Your task to perform on an android device: Open CNN.com Image 0: 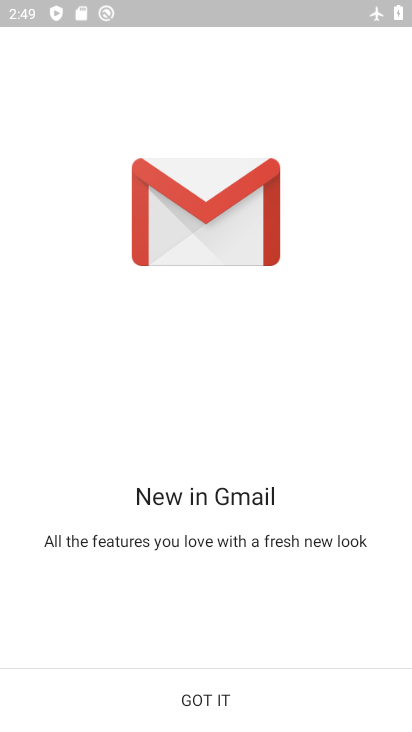
Step 0: press home button
Your task to perform on an android device: Open CNN.com Image 1: 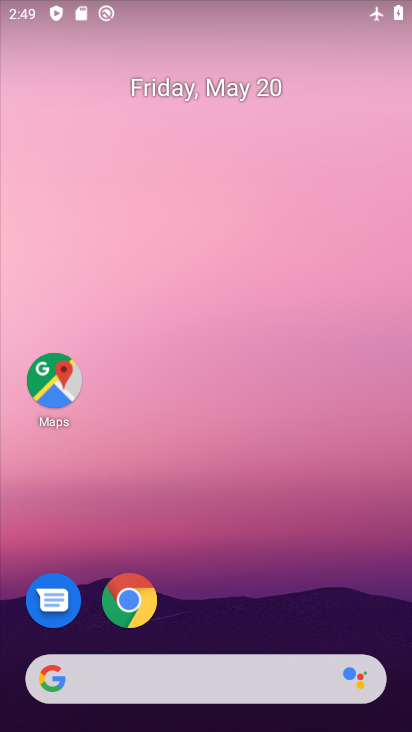
Step 1: click (141, 602)
Your task to perform on an android device: Open CNN.com Image 2: 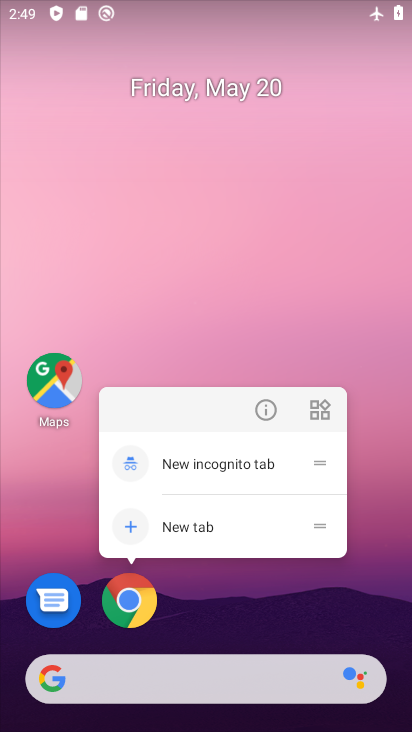
Step 2: click (141, 602)
Your task to perform on an android device: Open CNN.com Image 3: 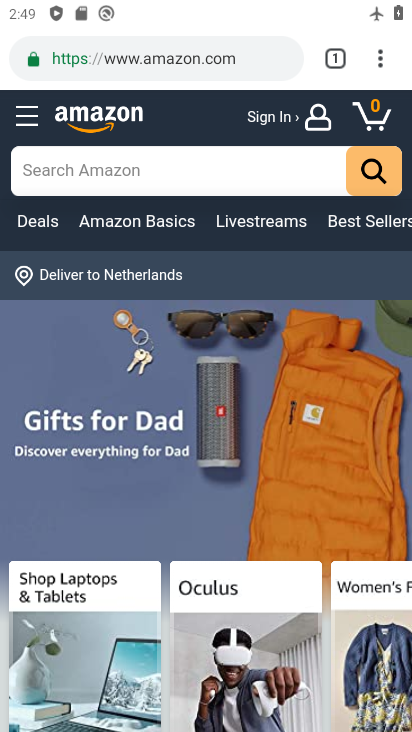
Step 3: click (172, 57)
Your task to perform on an android device: Open CNN.com Image 4: 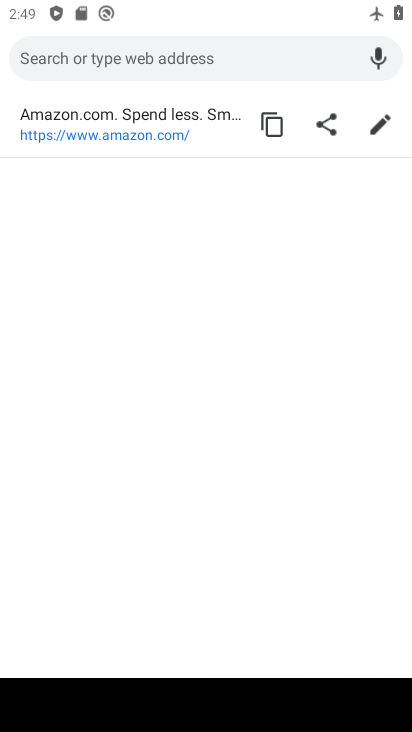
Step 4: type "CNN.com"
Your task to perform on an android device: Open CNN.com Image 5: 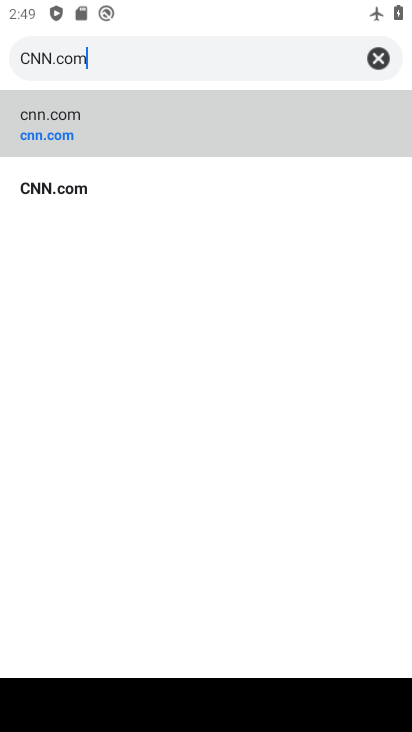
Step 5: click (78, 176)
Your task to perform on an android device: Open CNN.com Image 6: 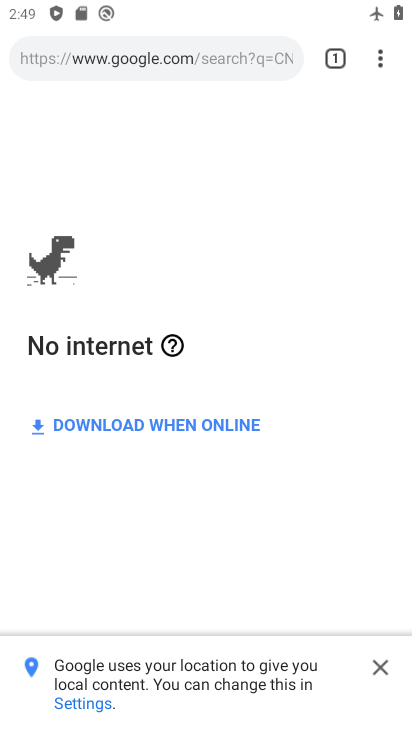
Step 6: task complete